Your task to perform on an android device: What's a good restaurant in San Diego? Image 0: 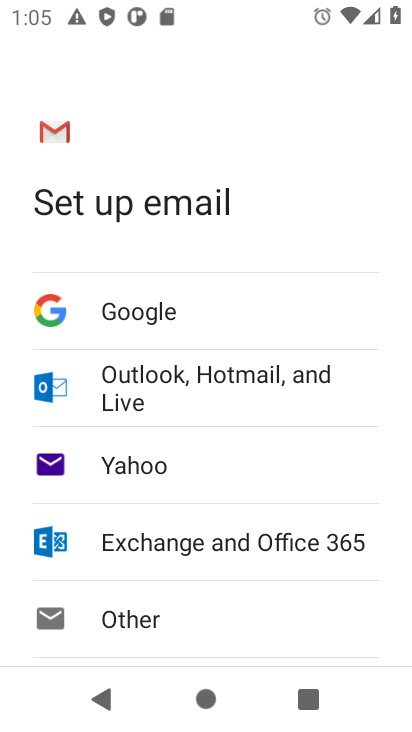
Step 0: press home button
Your task to perform on an android device: What's a good restaurant in San Diego? Image 1: 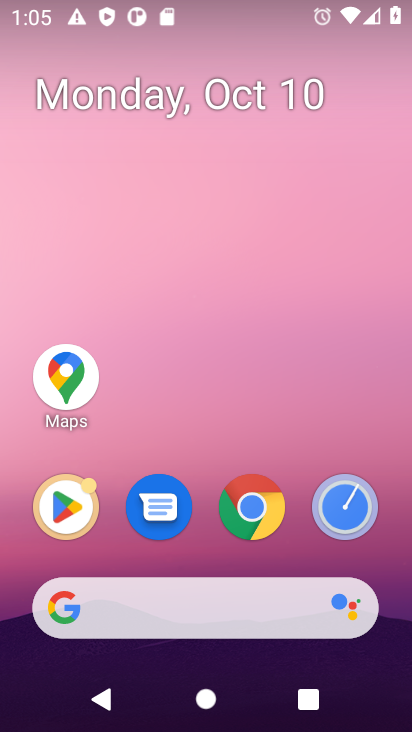
Step 1: click (280, 609)
Your task to perform on an android device: What's a good restaurant in San Diego? Image 2: 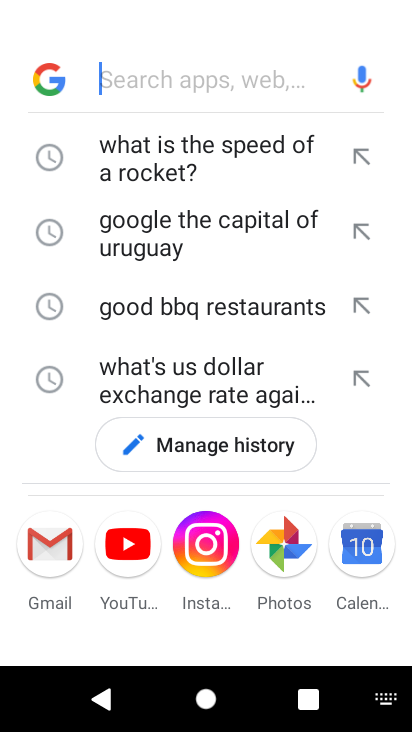
Step 2: type "What's a good restaurant in San Diego"
Your task to perform on an android device: What's a good restaurant in San Diego? Image 3: 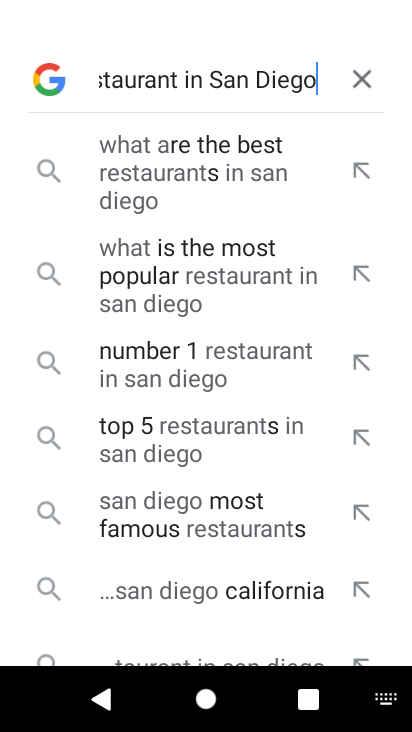
Step 3: press enter
Your task to perform on an android device: What's a good restaurant in San Diego? Image 4: 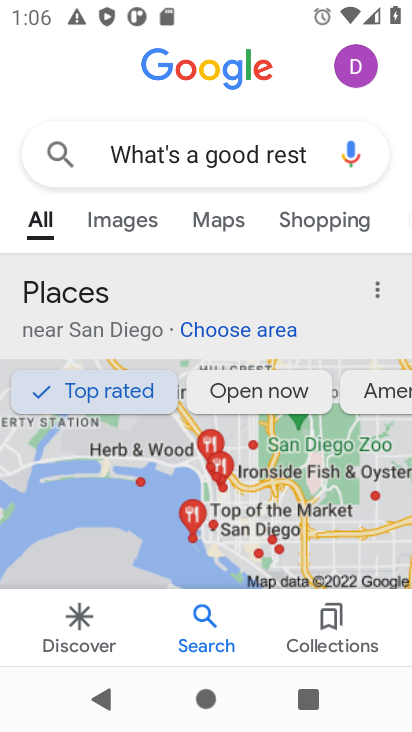
Step 4: drag from (267, 491) to (284, 350)
Your task to perform on an android device: What's a good restaurant in San Diego? Image 5: 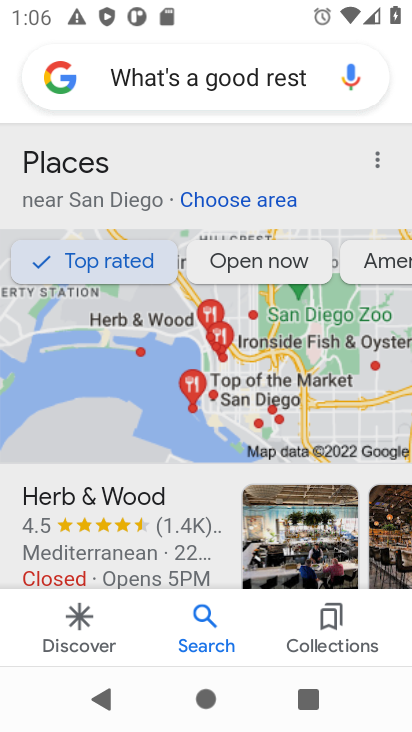
Step 5: drag from (242, 484) to (243, 356)
Your task to perform on an android device: What's a good restaurant in San Diego? Image 6: 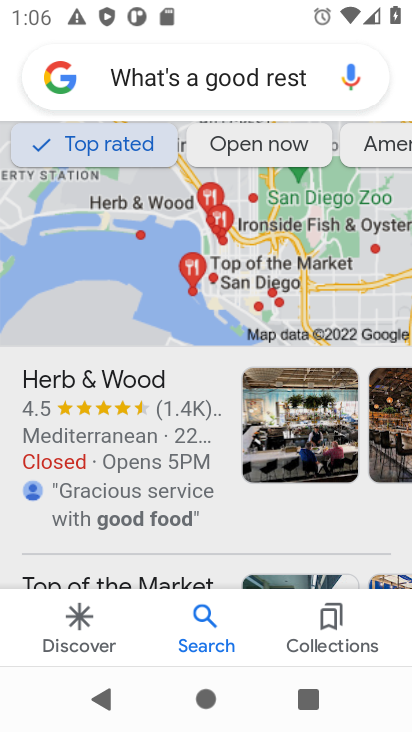
Step 6: drag from (221, 535) to (232, 341)
Your task to perform on an android device: What's a good restaurant in San Diego? Image 7: 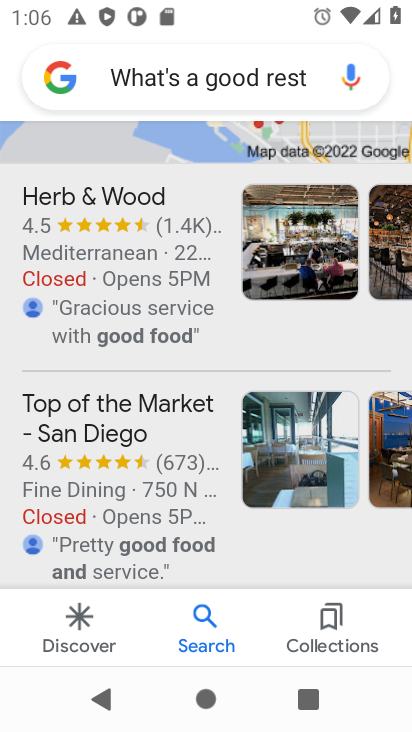
Step 7: drag from (223, 534) to (252, 314)
Your task to perform on an android device: What's a good restaurant in San Diego? Image 8: 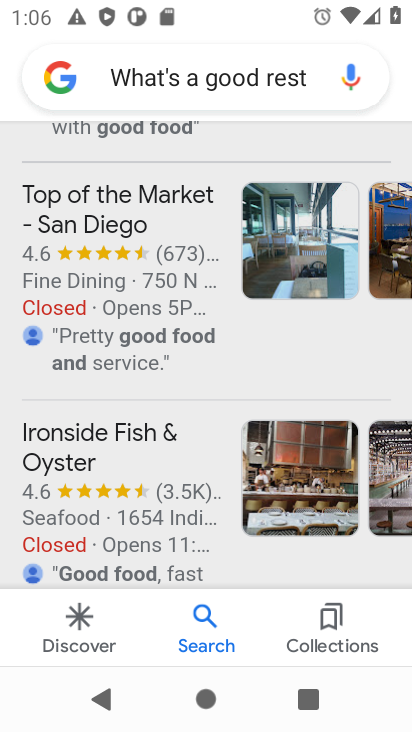
Step 8: drag from (191, 528) to (200, 314)
Your task to perform on an android device: What's a good restaurant in San Diego? Image 9: 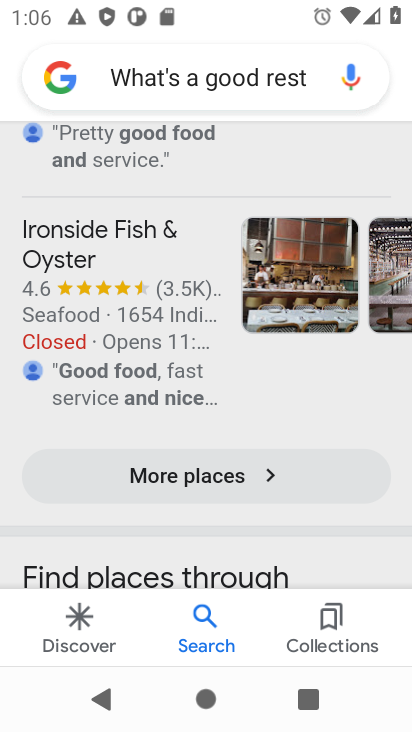
Step 9: click (196, 476)
Your task to perform on an android device: What's a good restaurant in San Diego? Image 10: 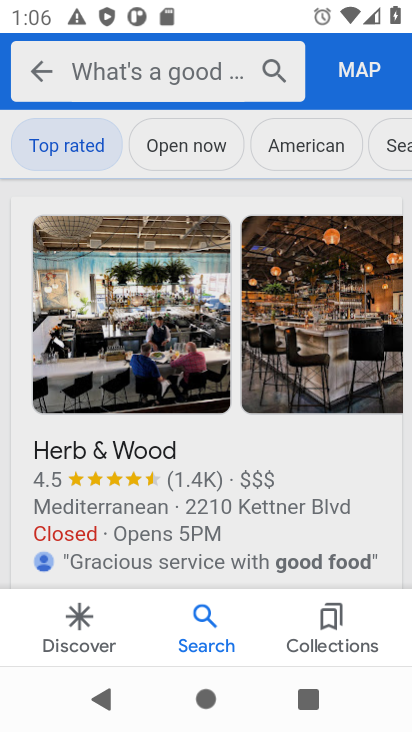
Step 10: task complete